Your task to perform on an android device: all mails in gmail Image 0: 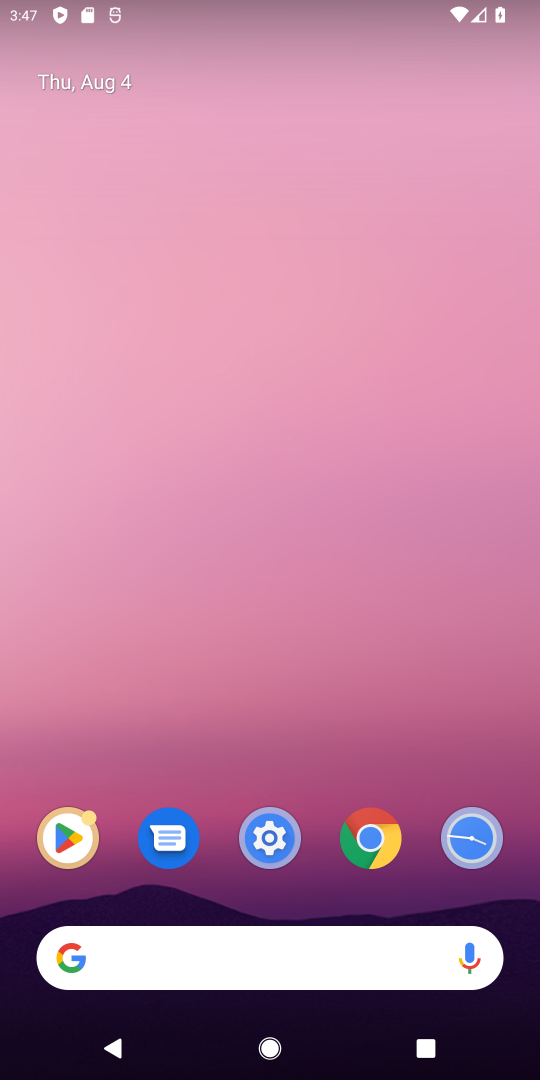
Step 0: drag from (492, 787) to (492, 292)
Your task to perform on an android device: all mails in gmail Image 1: 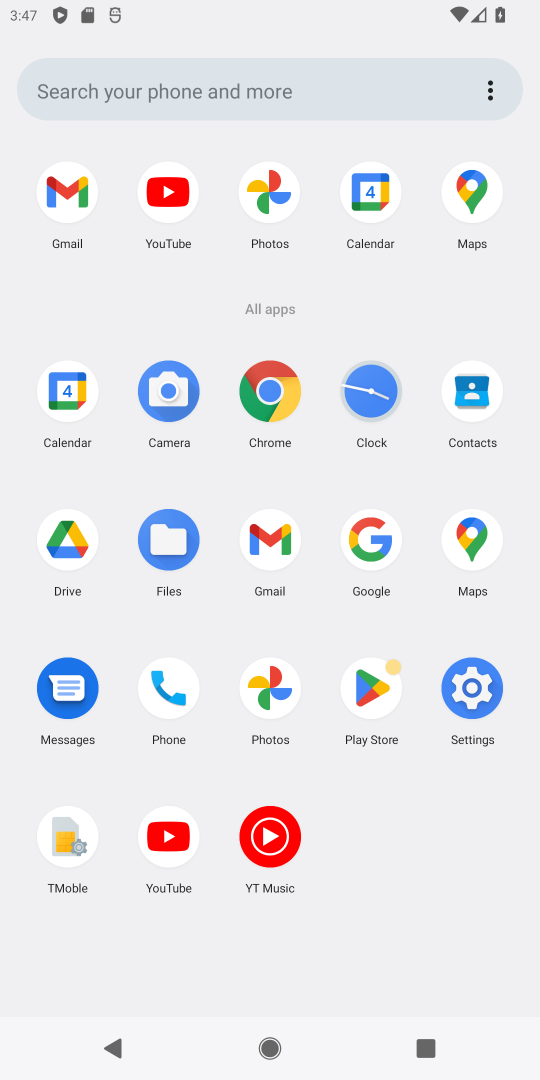
Step 1: click (272, 543)
Your task to perform on an android device: all mails in gmail Image 2: 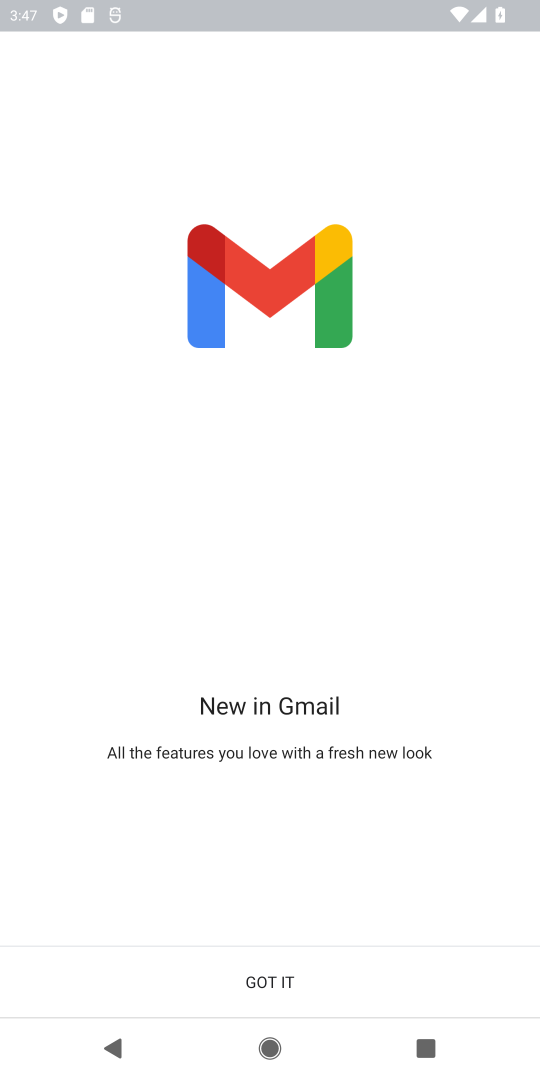
Step 2: click (321, 975)
Your task to perform on an android device: all mails in gmail Image 3: 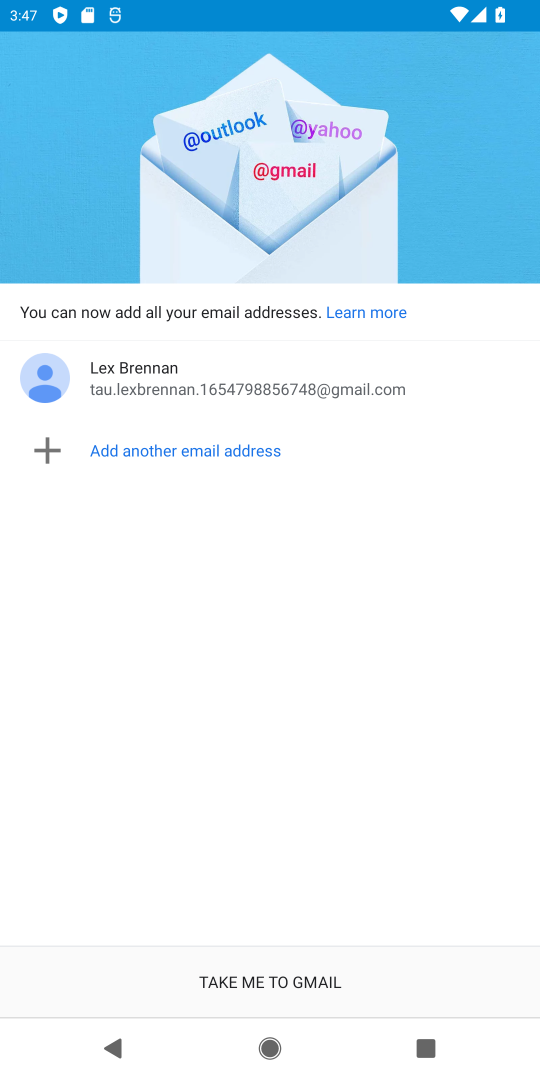
Step 3: click (379, 987)
Your task to perform on an android device: all mails in gmail Image 4: 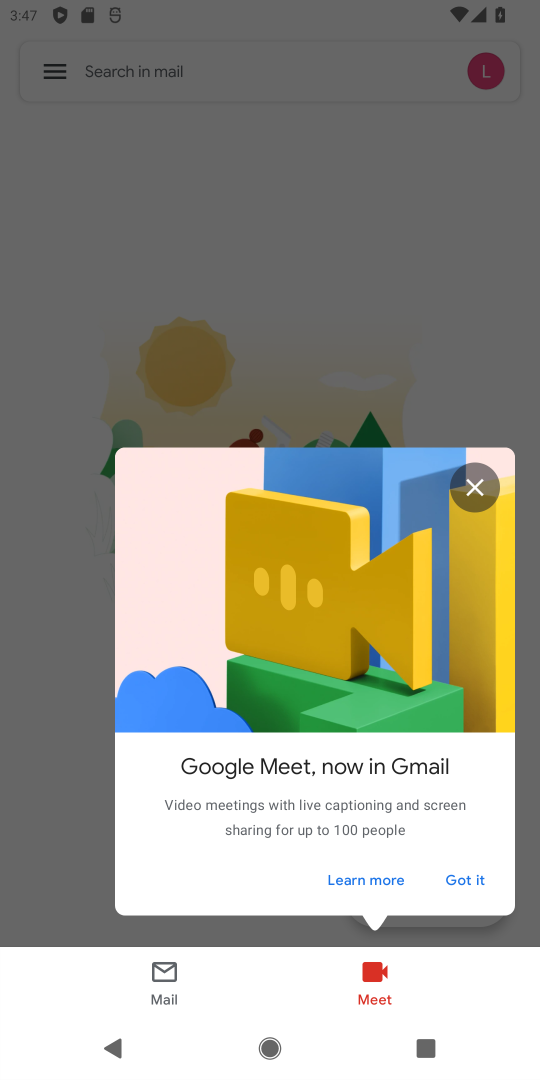
Step 4: click (479, 484)
Your task to perform on an android device: all mails in gmail Image 5: 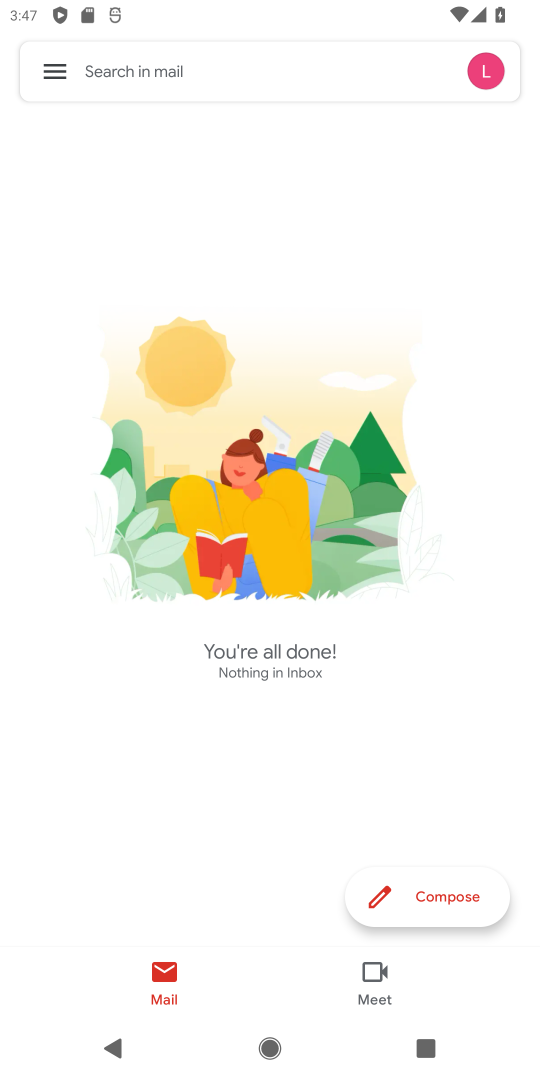
Step 5: click (49, 72)
Your task to perform on an android device: all mails in gmail Image 6: 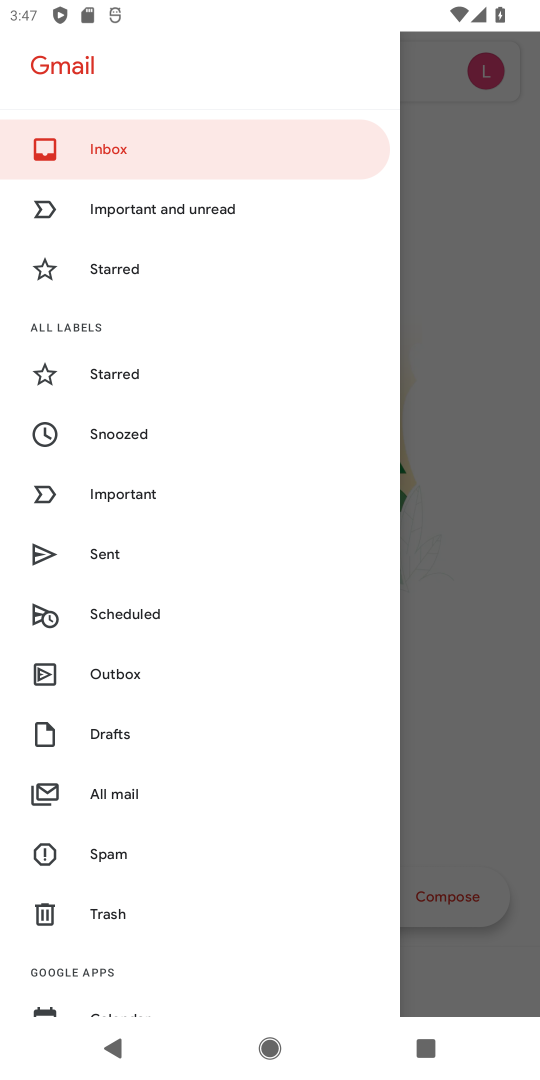
Step 6: click (172, 784)
Your task to perform on an android device: all mails in gmail Image 7: 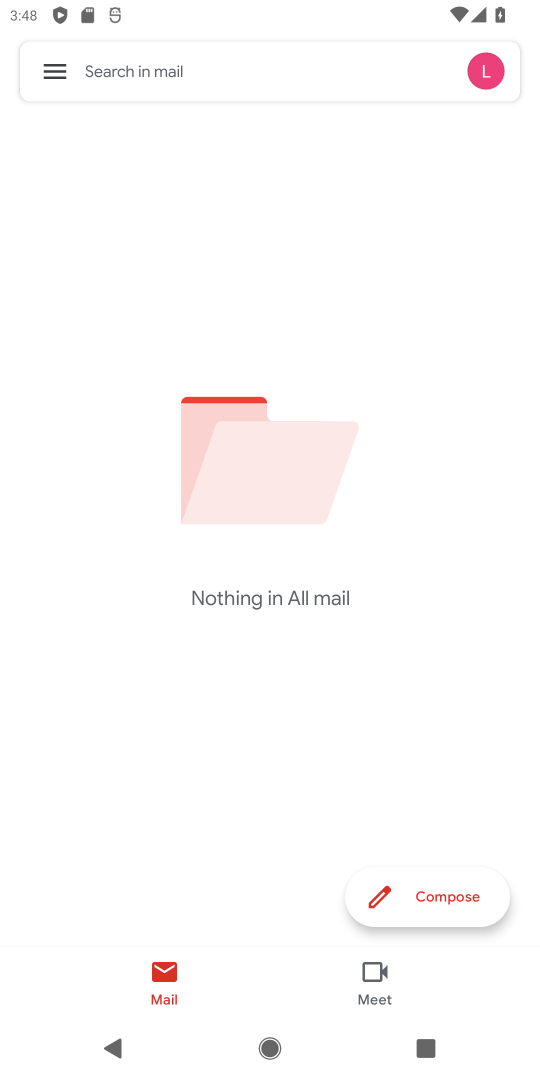
Step 7: task complete